Your task to perform on an android device: toggle notification dots Image 0: 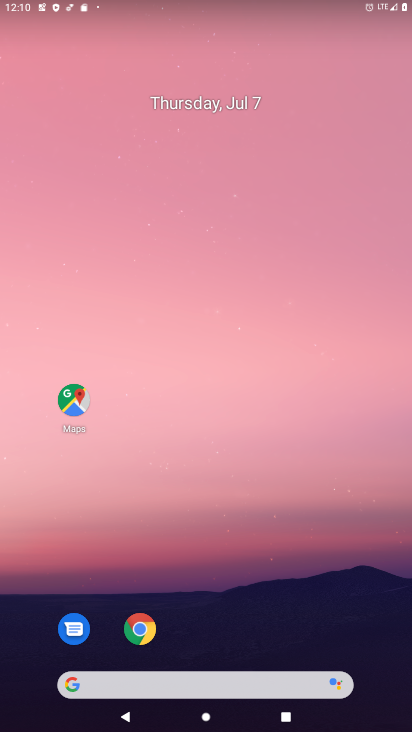
Step 0: drag from (257, 621) to (306, 191)
Your task to perform on an android device: toggle notification dots Image 1: 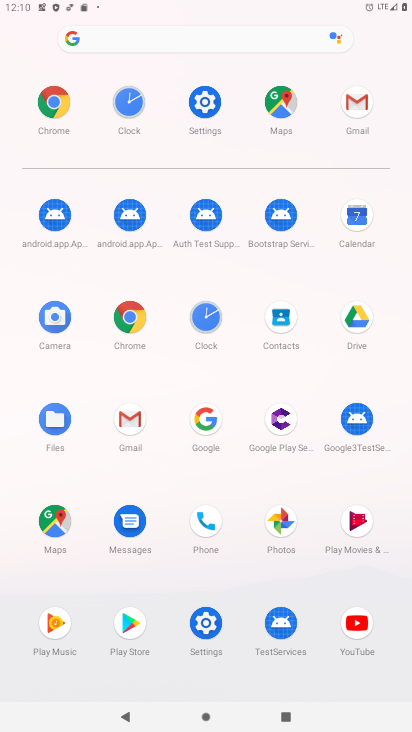
Step 1: click (206, 623)
Your task to perform on an android device: toggle notification dots Image 2: 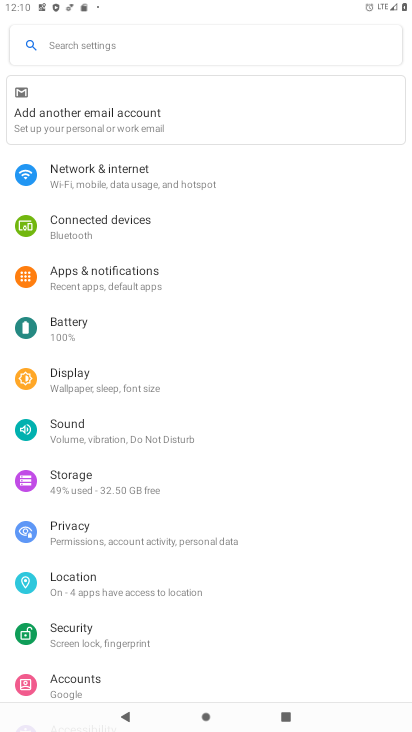
Step 2: click (140, 269)
Your task to perform on an android device: toggle notification dots Image 3: 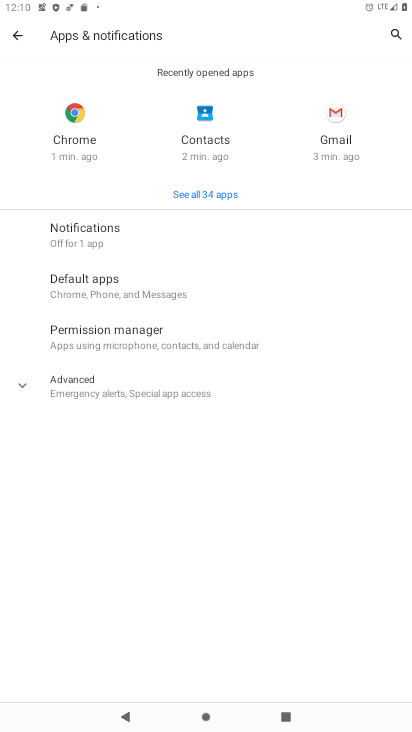
Step 3: click (108, 230)
Your task to perform on an android device: toggle notification dots Image 4: 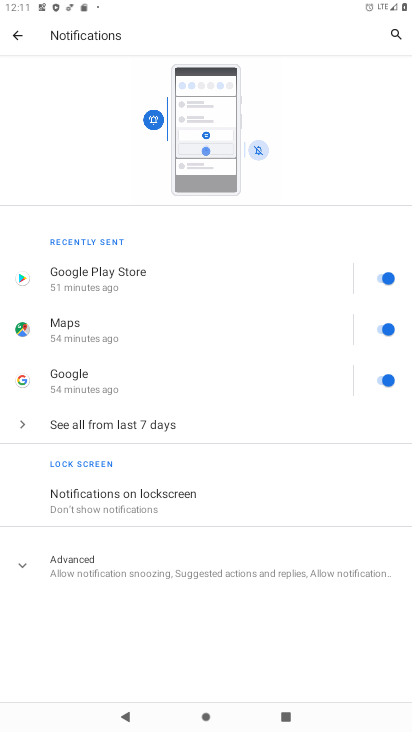
Step 4: click (141, 576)
Your task to perform on an android device: toggle notification dots Image 5: 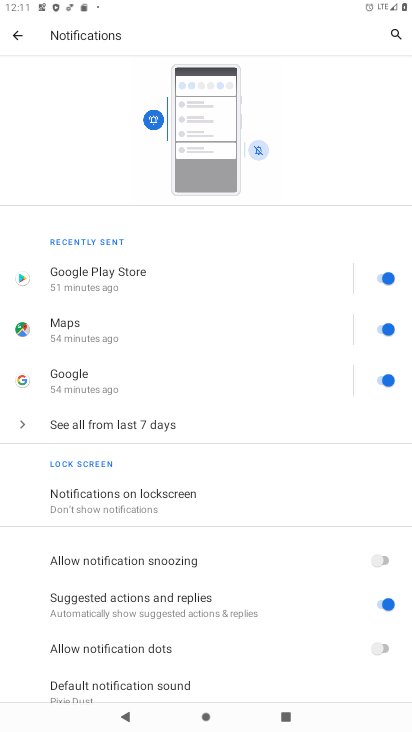
Step 5: click (378, 651)
Your task to perform on an android device: toggle notification dots Image 6: 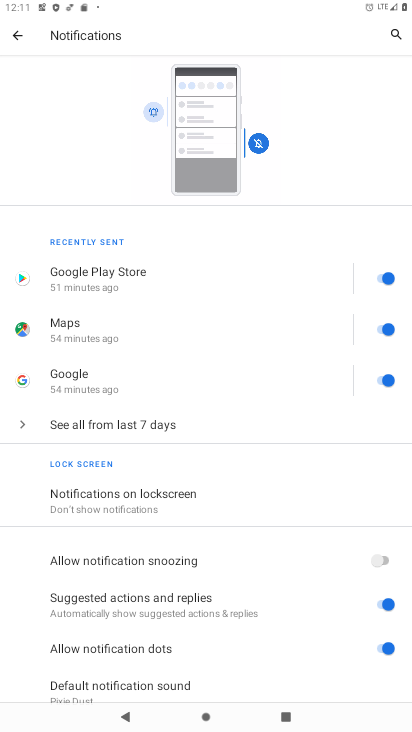
Step 6: task complete